Your task to perform on an android device: change notification settings in the gmail app Image 0: 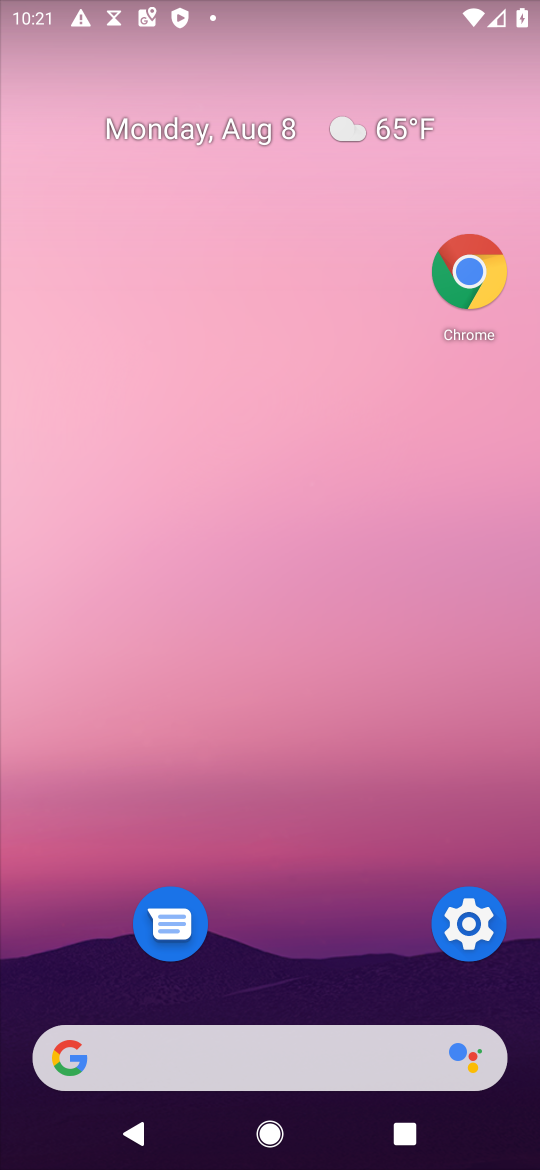
Step 0: drag from (336, 622) to (341, 109)
Your task to perform on an android device: change notification settings in the gmail app Image 1: 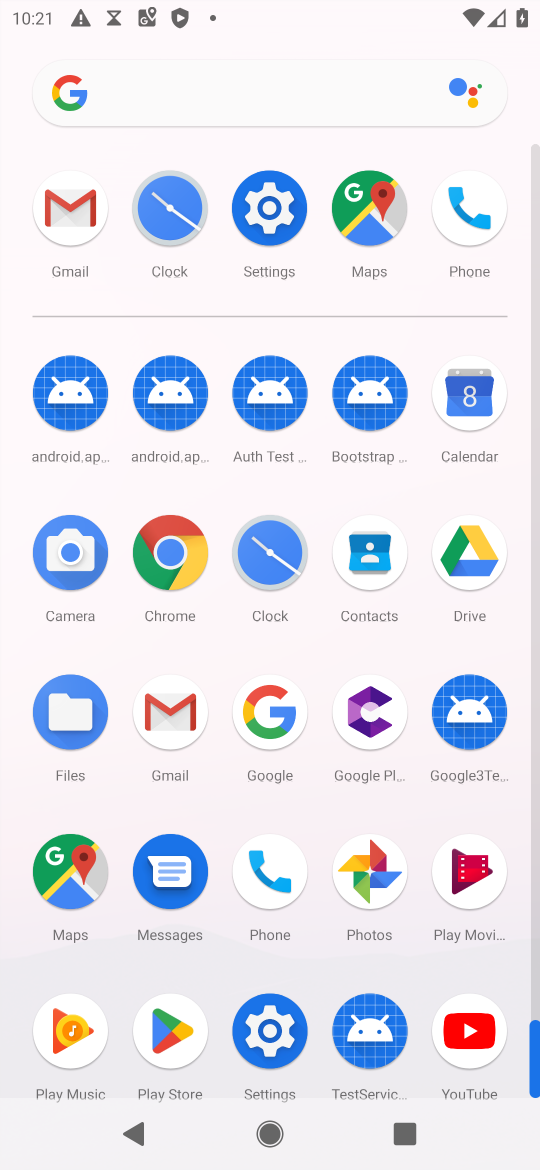
Step 1: click (272, 1040)
Your task to perform on an android device: change notification settings in the gmail app Image 2: 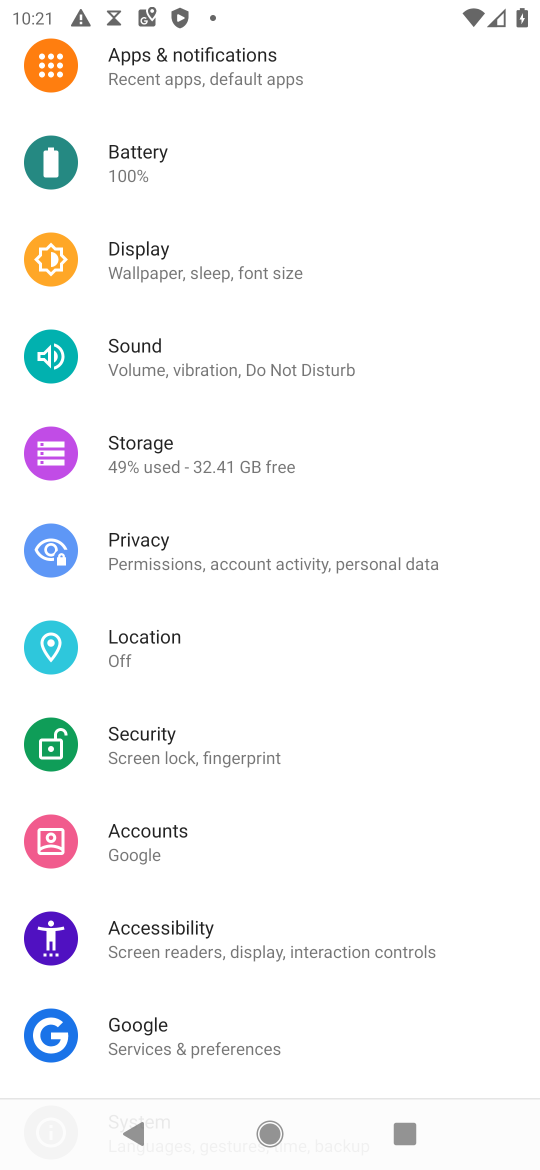
Step 2: press home button
Your task to perform on an android device: change notification settings in the gmail app Image 3: 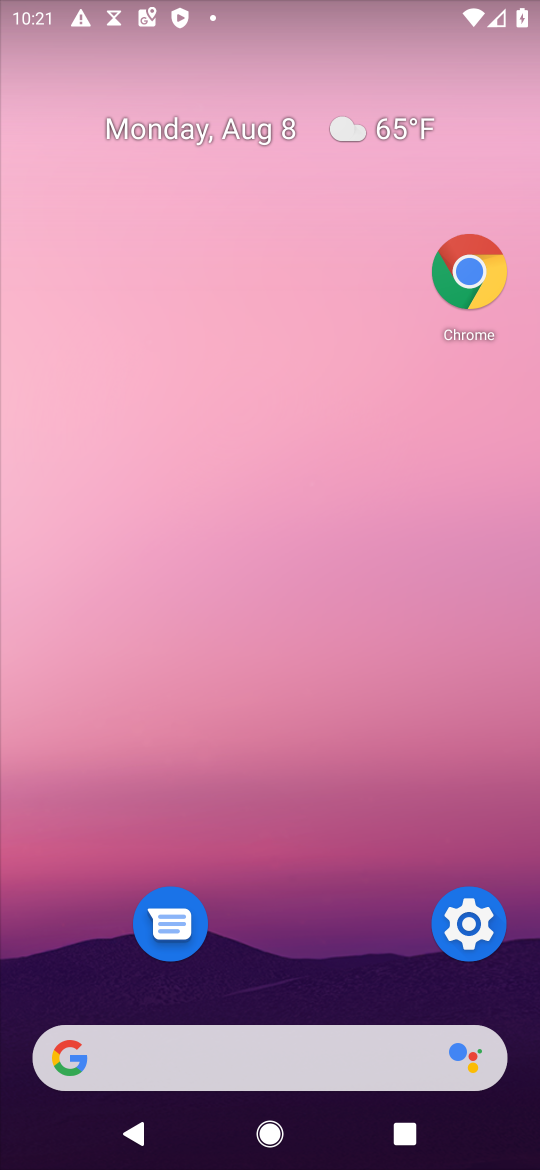
Step 3: drag from (382, 921) to (335, 460)
Your task to perform on an android device: change notification settings in the gmail app Image 4: 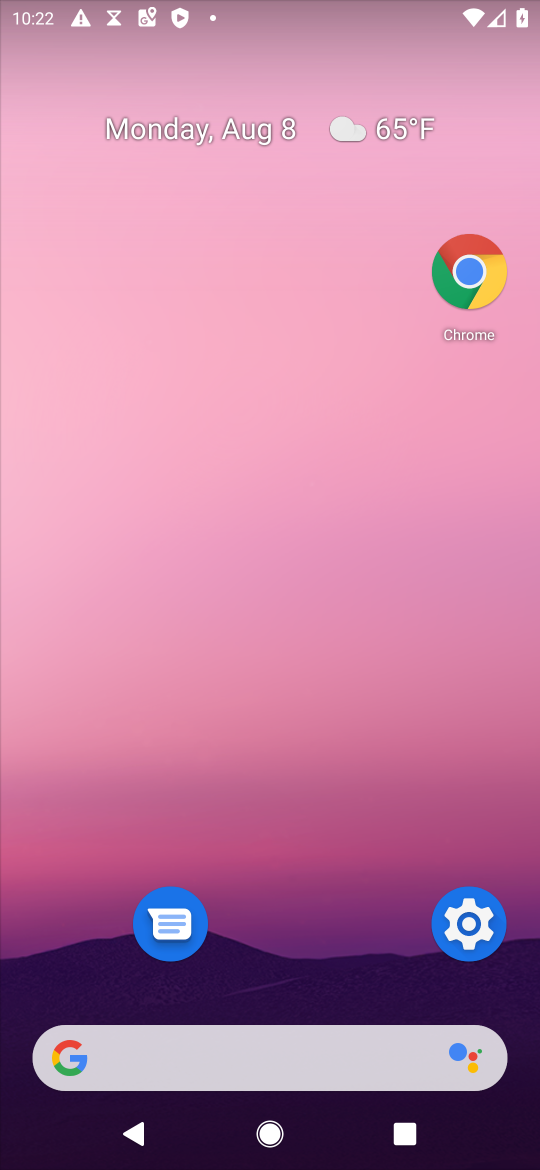
Step 4: drag from (245, 925) to (263, 263)
Your task to perform on an android device: change notification settings in the gmail app Image 5: 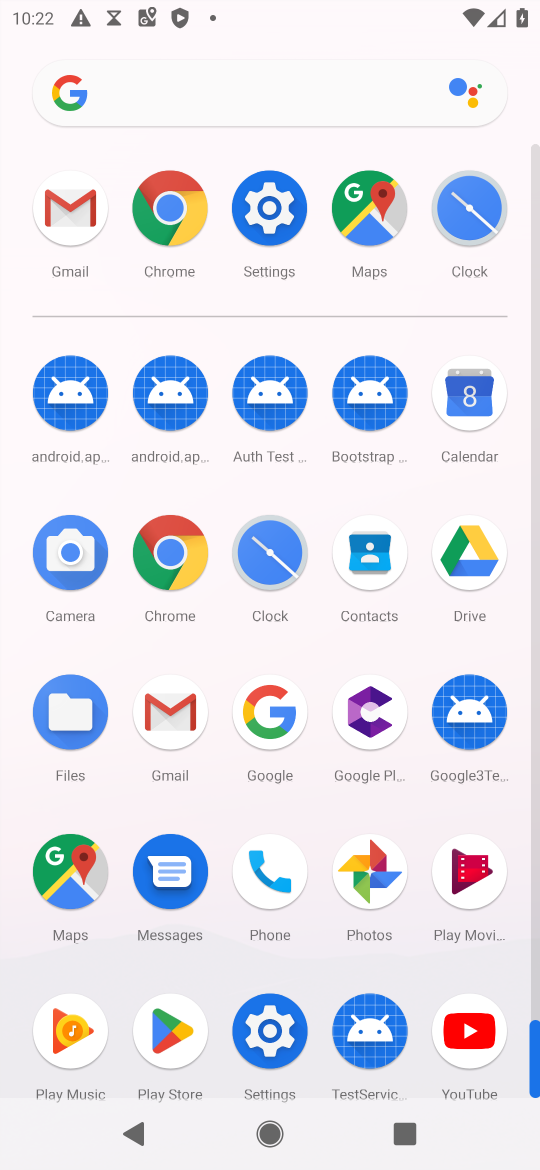
Step 5: click (162, 736)
Your task to perform on an android device: change notification settings in the gmail app Image 6: 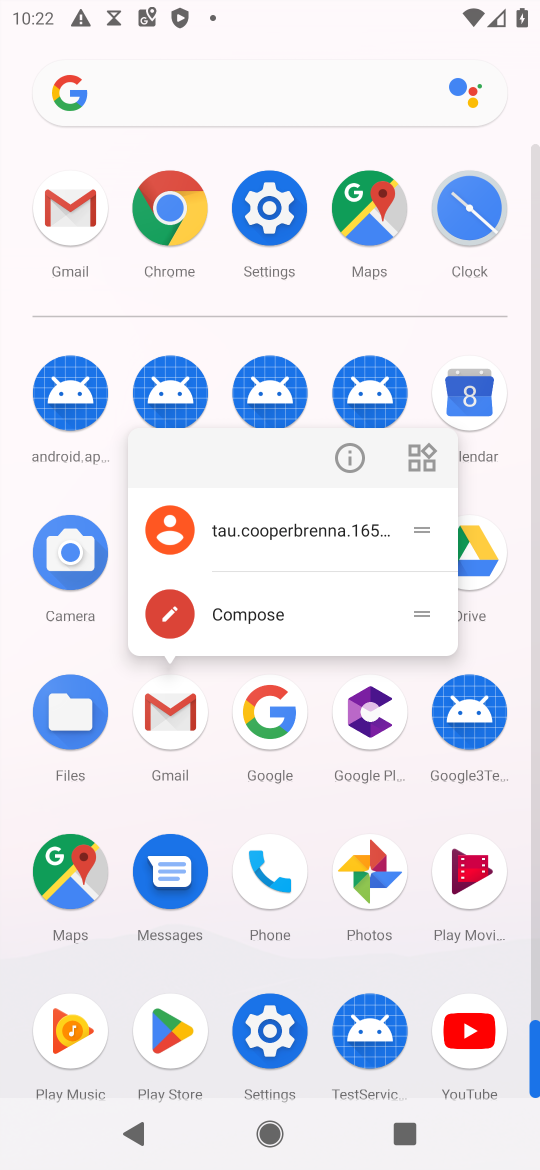
Step 6: click (350, 456)
Your task to perform on an android device: change notification settings in the gmail app Image 7: 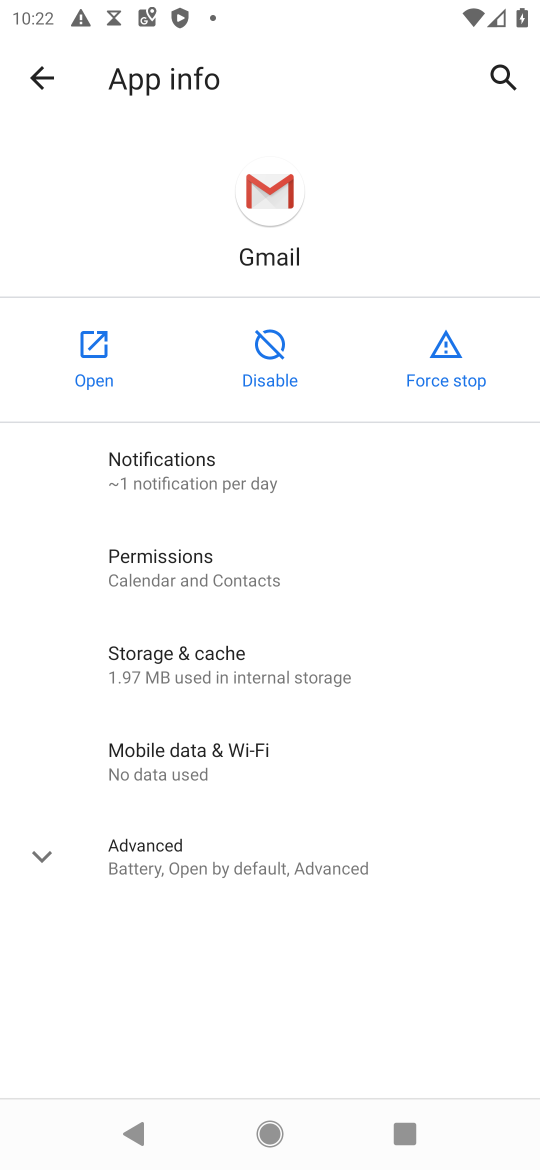
Step 7: click (184, 484)
Your task to perform on an android device: change notification settings in the gmail app Image 8: 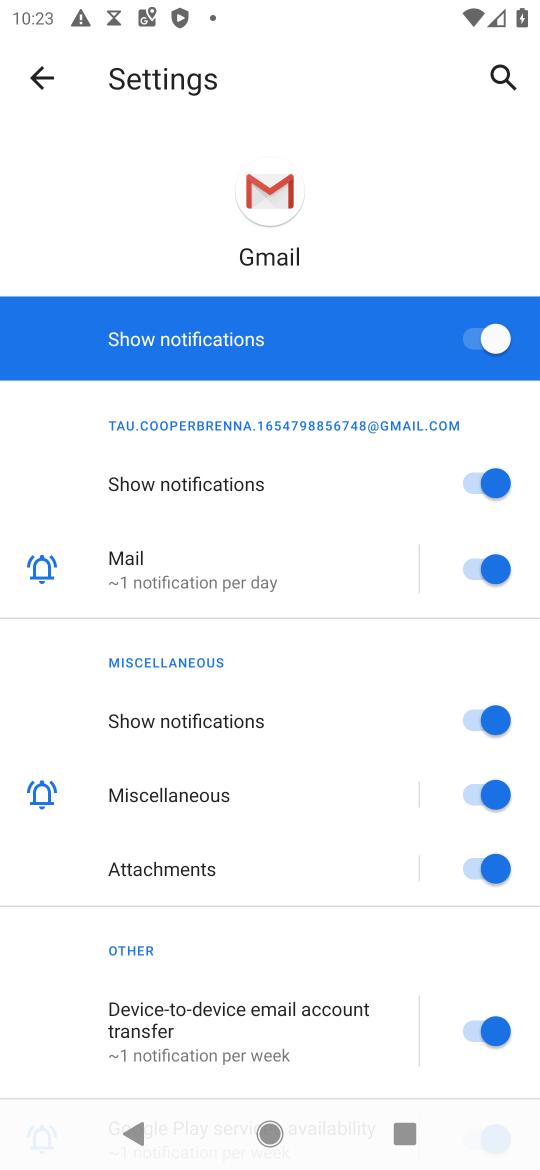
Step 8: click (488, 318)
Your task to perform on an android device: change notification settings in the gmail app Image 9: 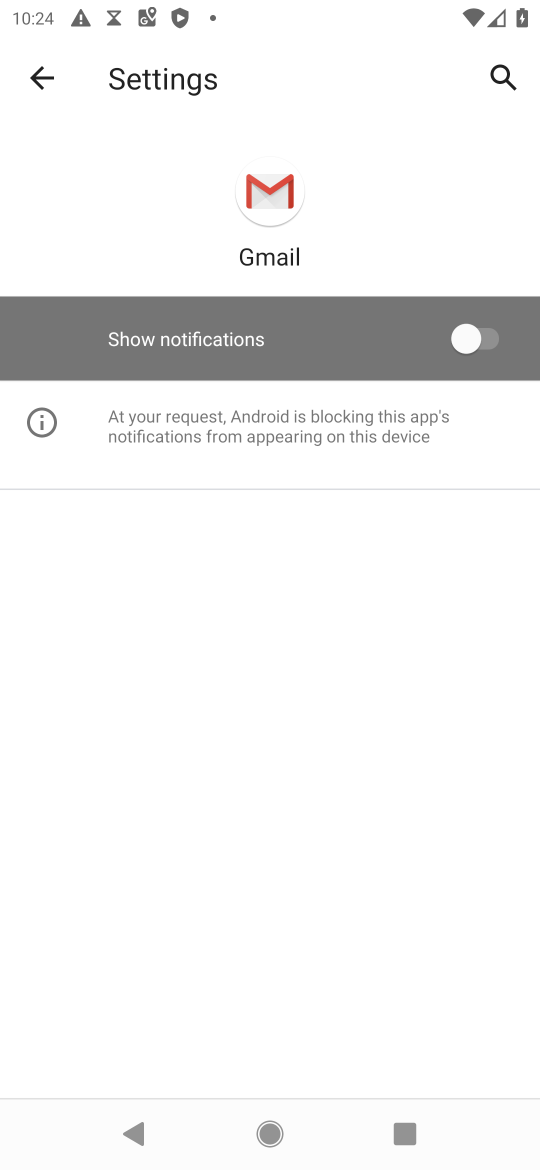
Step 9: task complete